Your task to perform on an android device: Open eBay Image 0: 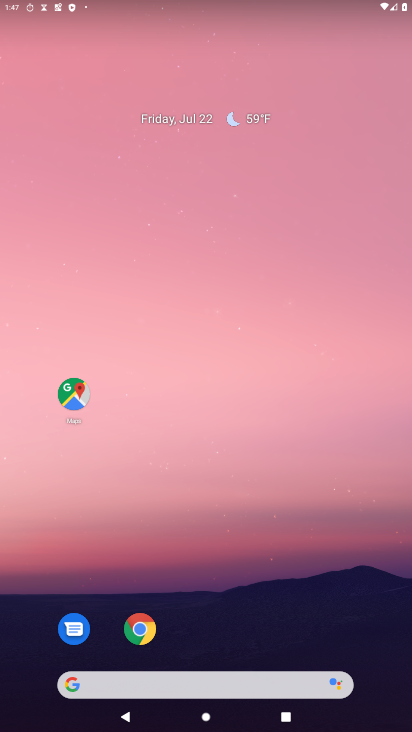
Step 0: drag from (129, 686) to (261, 16)
Your task to perform on an android device: Open eBay Image 1: 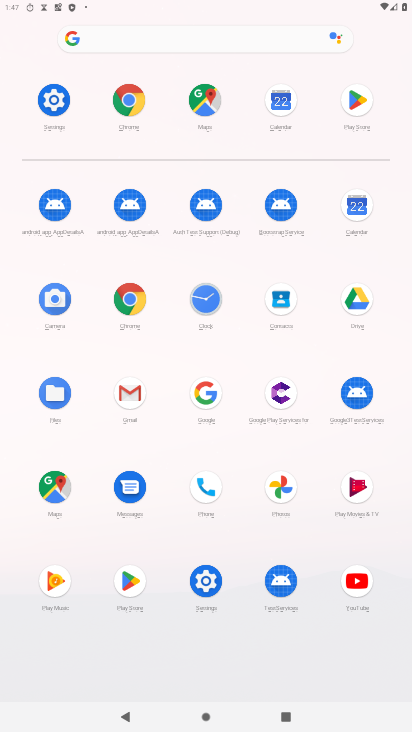
Step 1: click (123, 310)
Your task to perform on an android device: Open eBay Image 2: 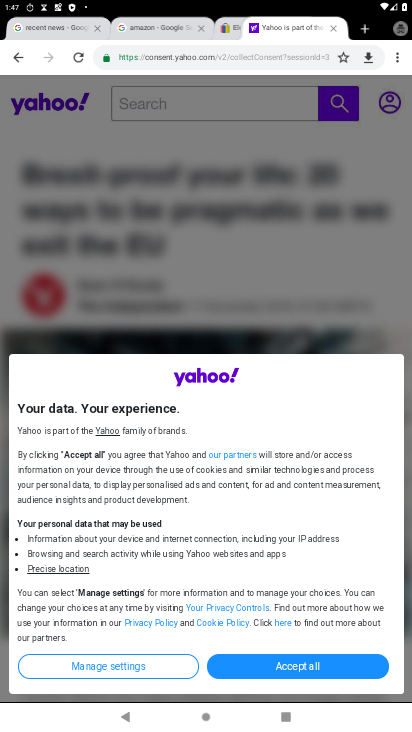
Step 2: click (399, 56)
Your task to perform on an android device: Open eBay Image 3: 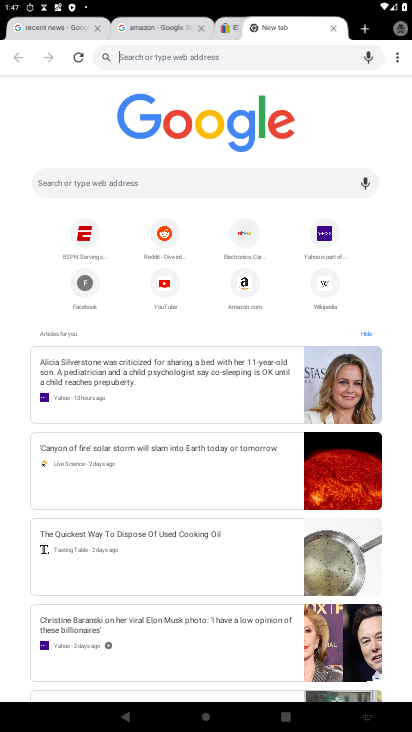
Step 3: drag from (398, 67) to (318, 47)
Your task to perform on an android device: Open eBay Image 4: 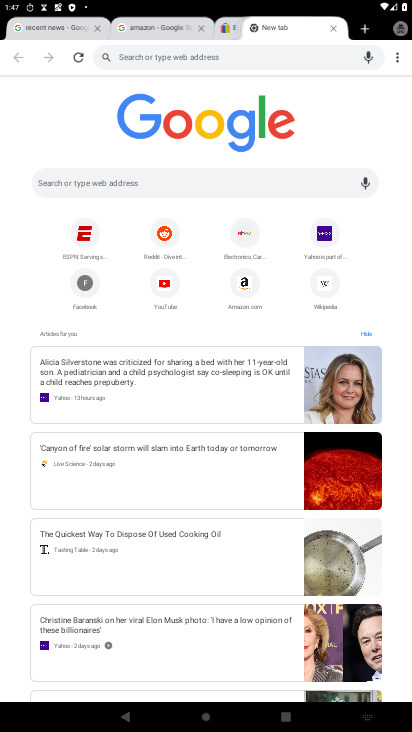
Step 4: click (218, 58)
Your task to perform on an android device: Open eBay Image 5: 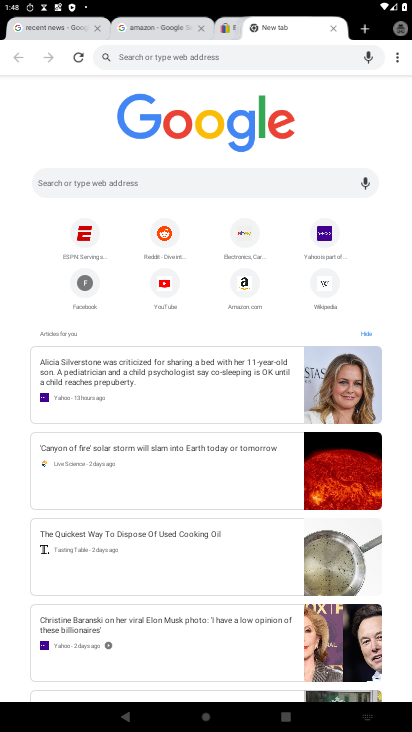
Step 5: type "ebay"
Your task to perform on an android device: Open eBay Image 6: 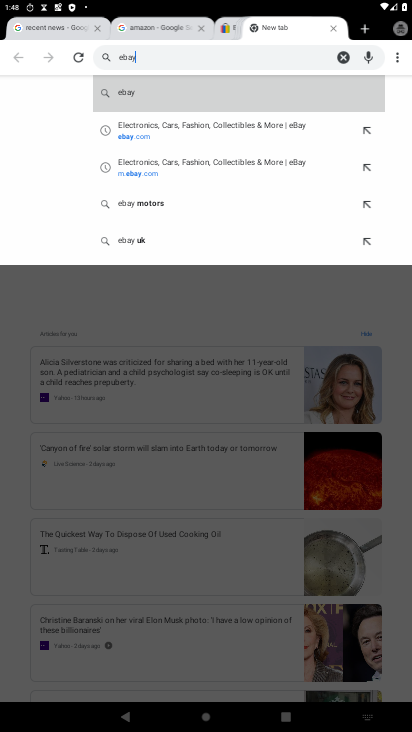
Step 6: click (214, 129)
Your task to perform on an android device: Open eBay Image 7: 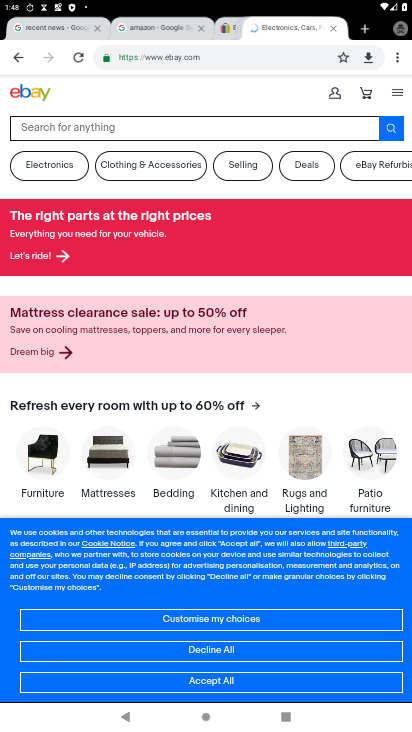
Step 7: task complete